Your task to perform on an android device: turn on javascript in the chrome app Image 0: 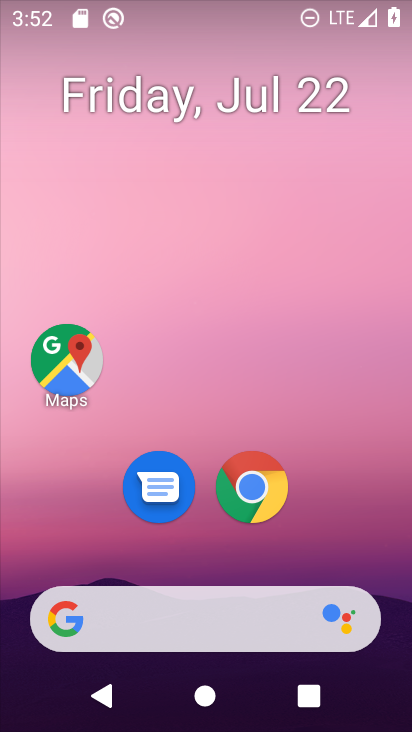
Step 0: click (241, 483)
Your task to perform on an android device: turn on javascript in the chrome app Image 1: 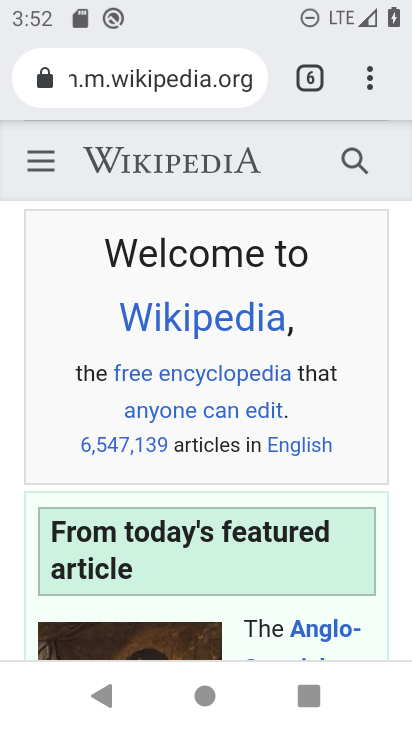
Step 1: drag from (370, 81) to (96, 552)
Your task to perform on an android device: turn on javascript in the chrome app Image 2: 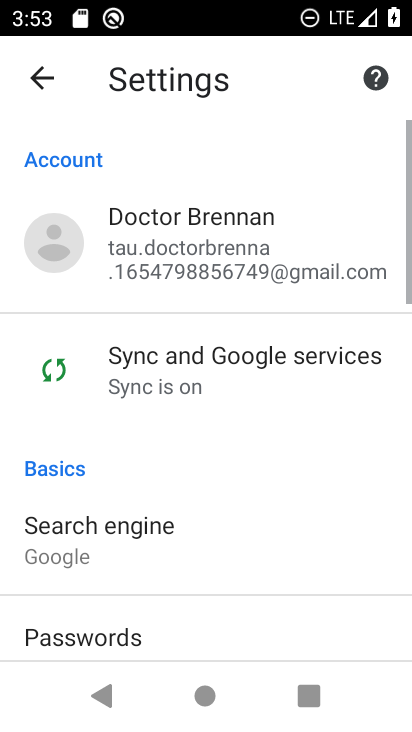
Step 2: drag from (118, 596) to (274, 24)
Your task to perform on an android device: turn on javascript in the chrome app Image 3: 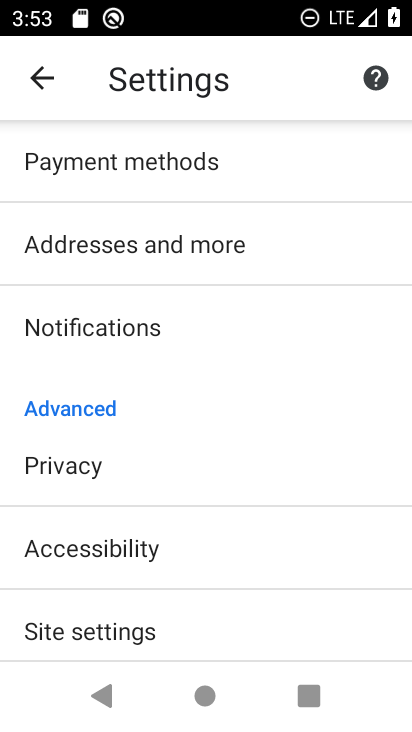
Step 3: click (104, 612)
Your task to perform on an android device: turn on javascript in the chrome app Image 4: 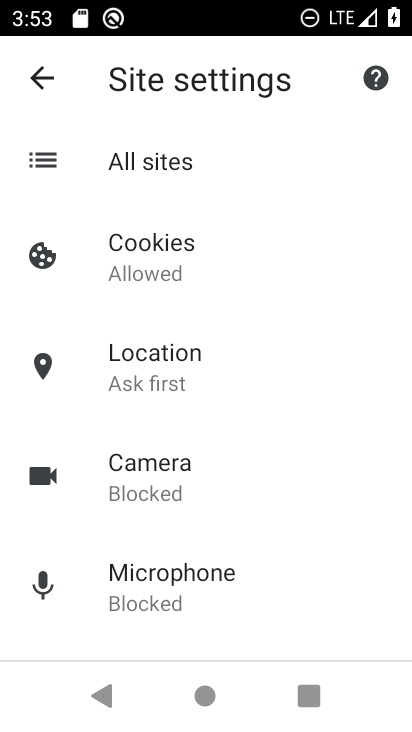
Step 4: drag from (151, 577) to (266, 130)
Your task to perform on an android device: turn on javascript in the chrome app Image 5: 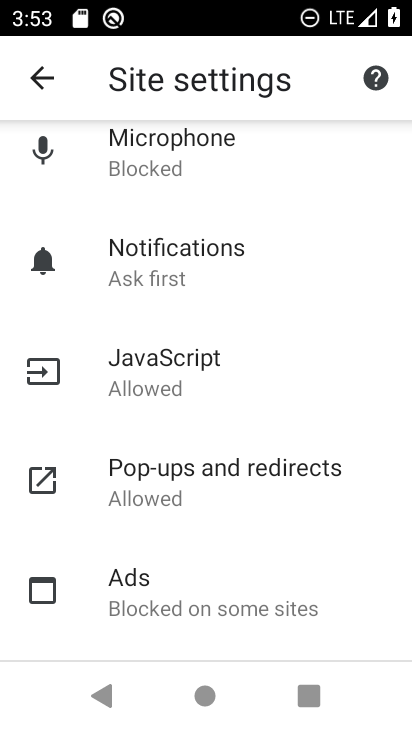
Step 5: click (168, 353)
Your task to perform on an android device: turn on javascript in the chrome app Image 6: 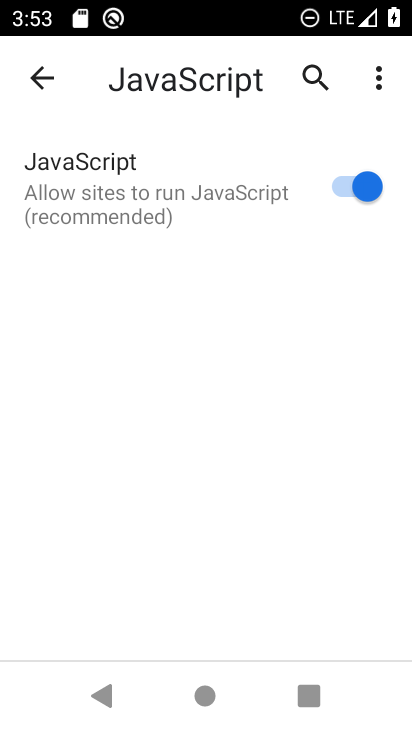
Step 6: task complete